Your task to perform on an android device: toggle notification dots Image 0: 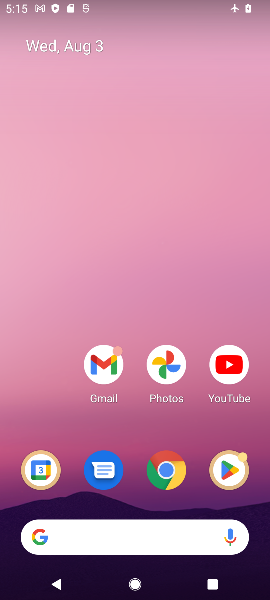
Step 0: drag from (48, 428) to (149, 69)
Your task to perform on an android device: toggle notification dots Image 1: 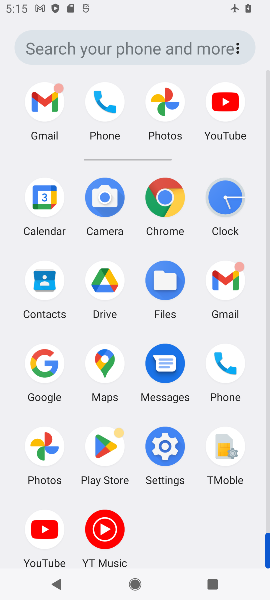
Step 1: click (164, 449)
Your task to perform on an android device: toggle notification dots Image 2: 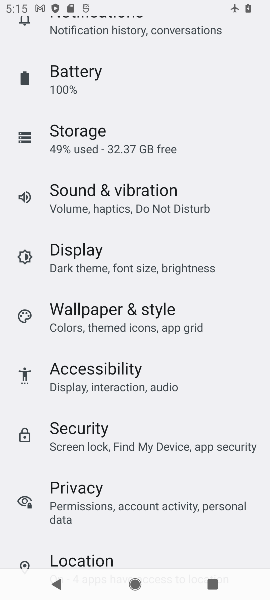
Step 2: drag from (211, 154) to (142, 481)
Your task to perform on an android device: toggle notification dots Image 3: 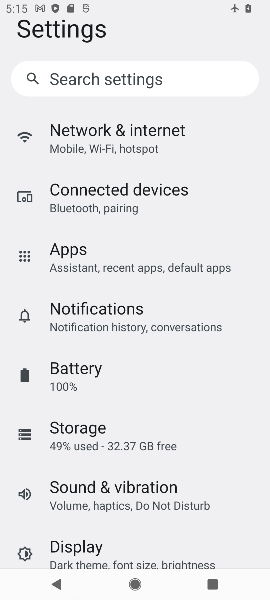
Step 3: click (123, 330)
Your task to perform on an android device: toggle notification dots Image 4: 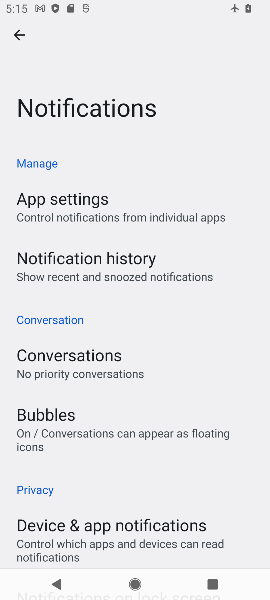
Step 4: drag from (148, 476) to (195, 254)
Your task to perform on an android device: toggle notification dots Image 5: 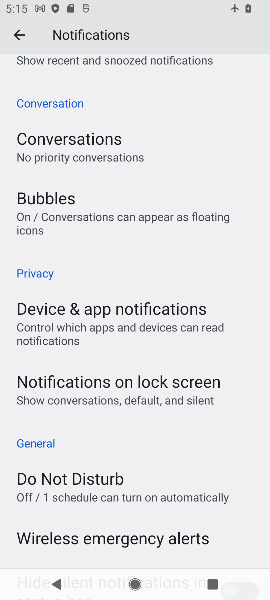
Step 5: drag from (168, 448) to (141, 562)
Your task to perform on an android device: toggle notification dots Image 6: 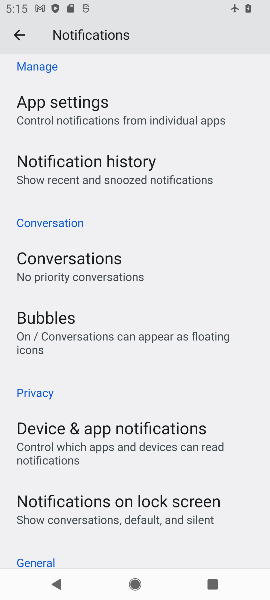
Step 6: drag from (163, 478) to (201, 228)
Your task to perform on an android device: toggle notification dots Image 7: 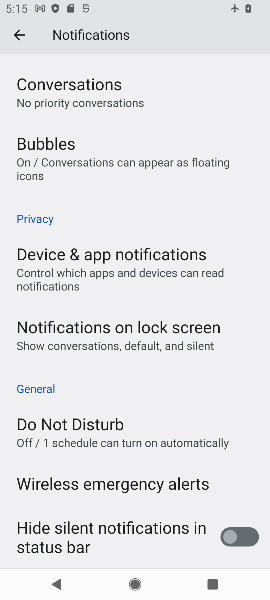
Step 7: drag from (239, 482) to (260, 169)
Your task to perform on an android device: toggle notification dots Image 8: 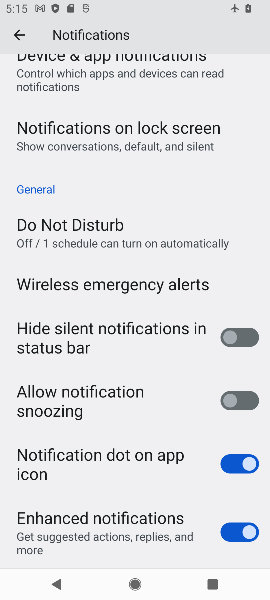
Step 8: click (237, 461)
Your task to perform on an android device: toggle notification dots Image 9: 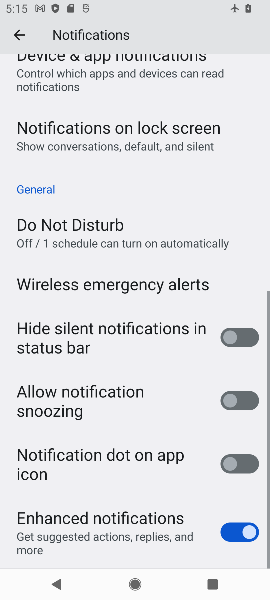
Step 9: task complete